Your task to perform on an android device: Go to ESPN.com Image 0: 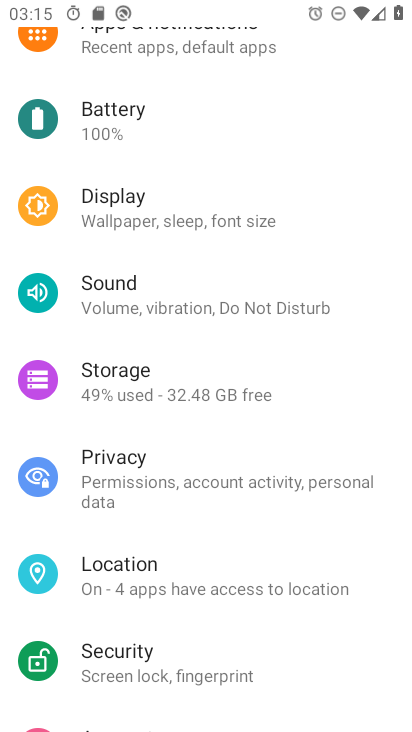
Step 0: press home button
Your task to perform on an android device: Go to ESPN.com Image 1: 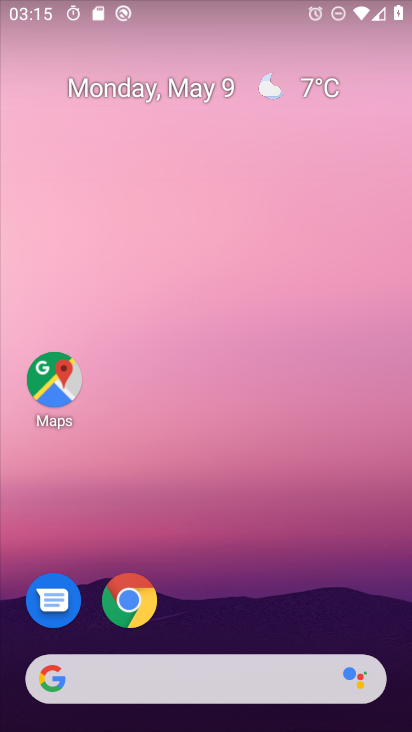
Step 1: click (133, 606)
Your task to perform on an android device: Go to ESPN.com Image 2: 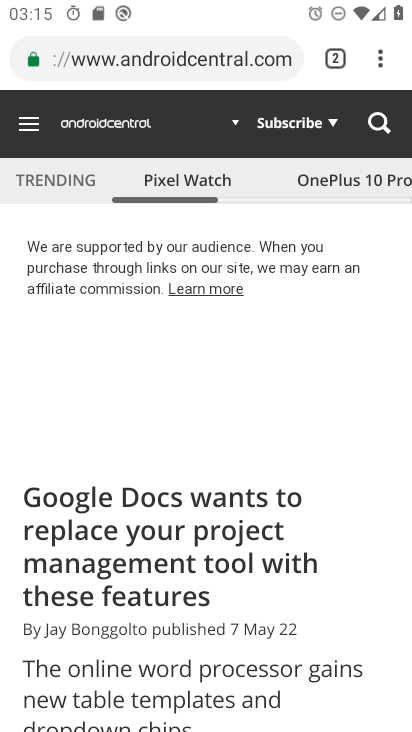
Step 2: click (272, 55)
Your task to perform on an android device: Go to ESPN.com Image 3: 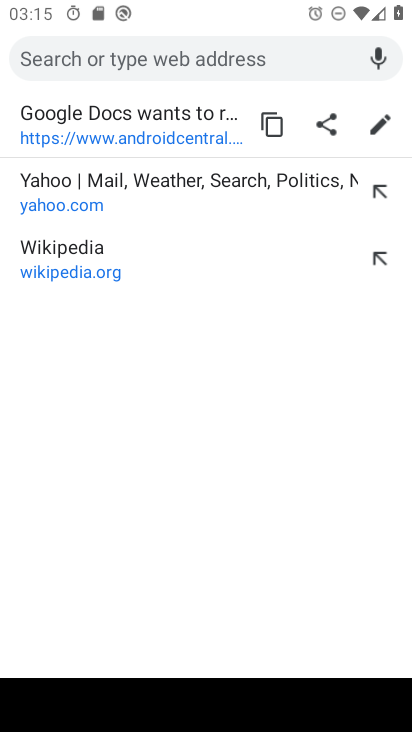
Step 3: type "espn.com"
Your task to perform on an android device: Go to ESPN.com Image 4: 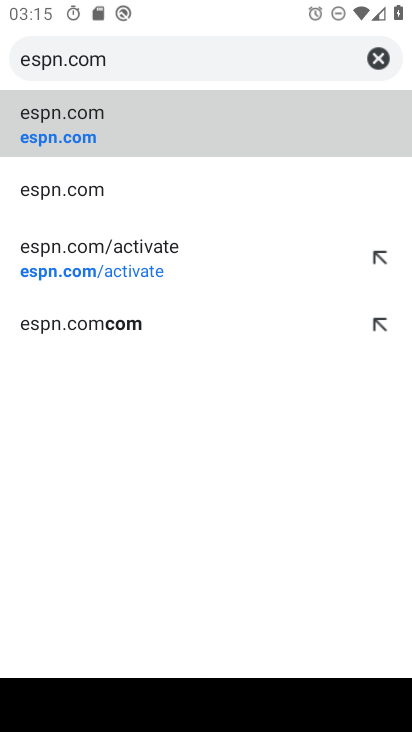
Step 4: click (118, 134)
Your task to perform on an android device: Go to ESPN.com Image 5: 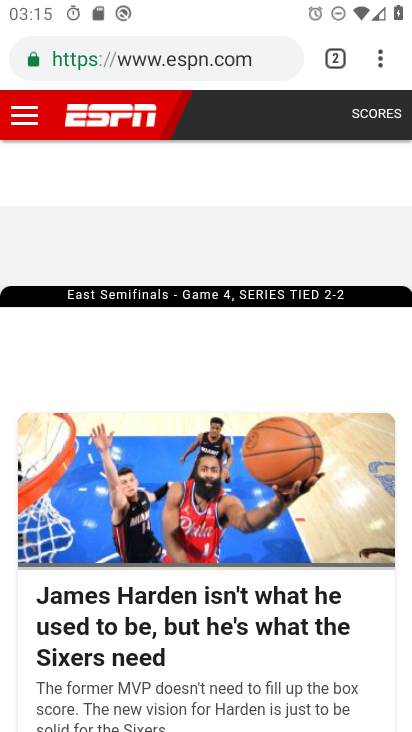
Step 5: task complete